Your task to perform on an android device: Go to display settings Image 0: 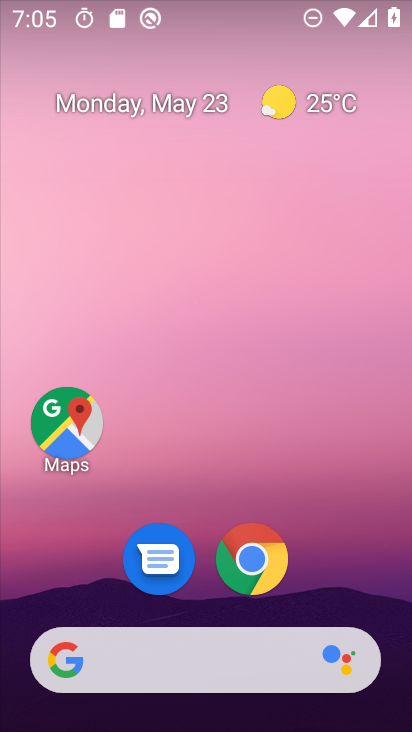
Step 0: drag from (389, 621) to (288, 16)
Your task to perform on an android device: Go to display settings Image 1: 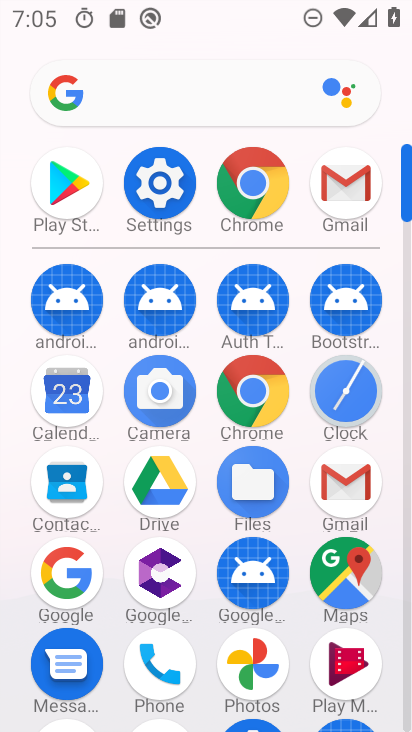
Step 1: click (144, 188)
Your task to perform on an android device: Go to display settings Image 2: 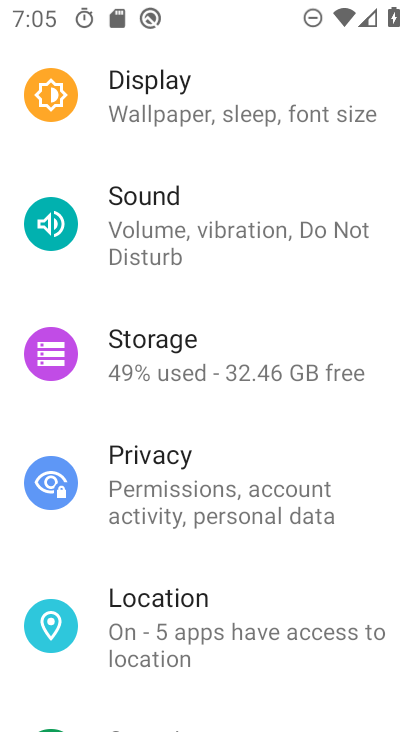
Step 2: click (197, 120)
Your task to perform on an android device: Go to display settings Image 3: 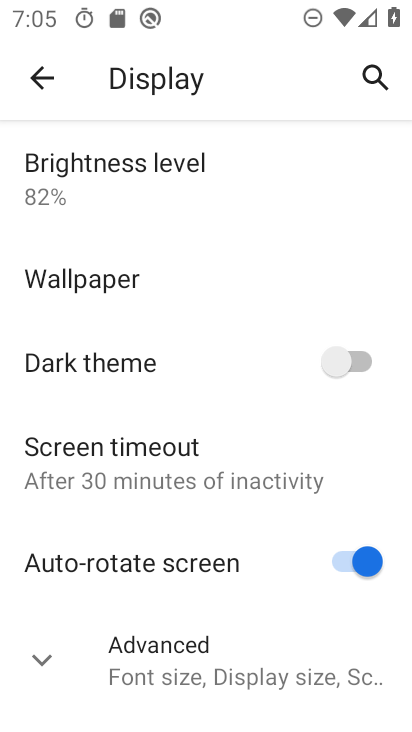
Step 3: task complete